Your task to perform on an android device: open device folders in google photos Image 0: 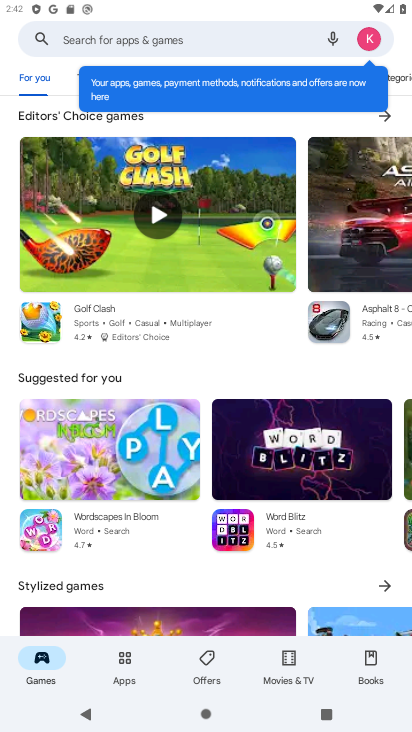
Step 0: press home button
Your task to perform on an android device: open device folders in google photos Image 1: 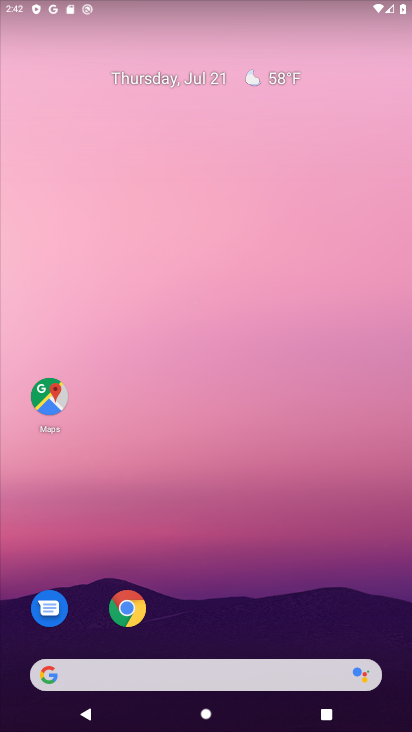
Step 1: drag from (220, 633) to (220, 155)
Your task to perform on an android device: open device folders in google photos Image 2: 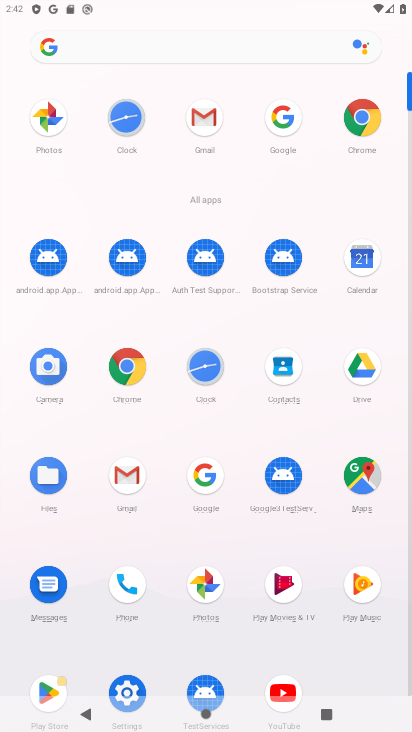
Step 2: click (205, 577)
Your task to perform on an android device: open device folders in google photos Image 3: 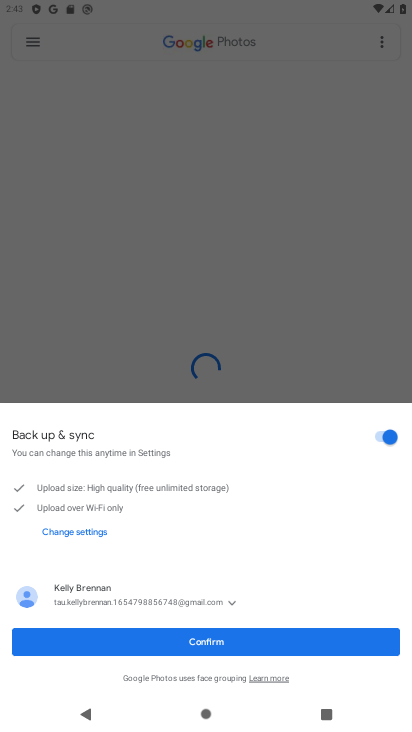
Step 3: click (219, 277)
Your task to perform on an android device: open device folders in google photos Image 4: 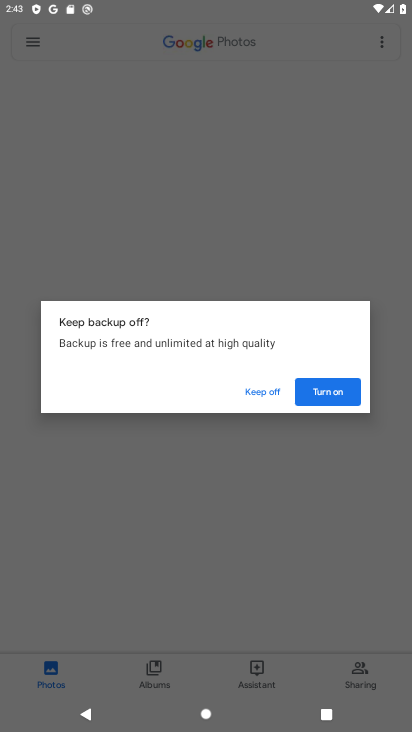
Step 4: click (259, 390)
Your task to perform on an android device: open device folders in google photos Image 5: 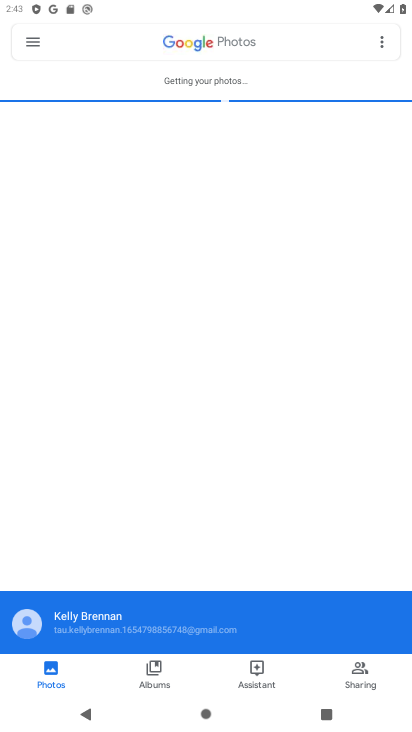
Step 5: click (29, 37)
Your task to perform on an android device: open device folders in google photos Image 6: 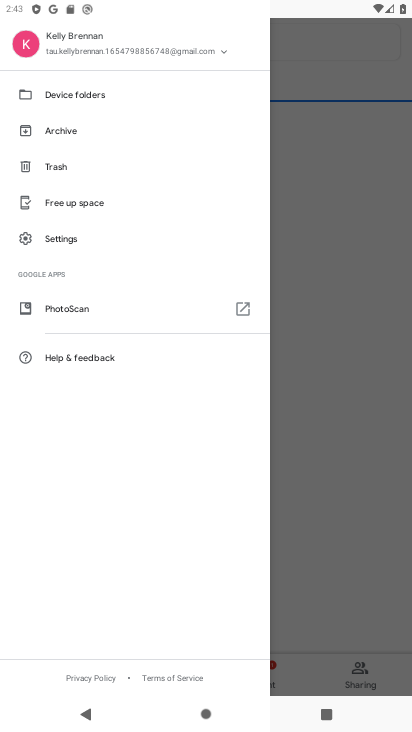
Step 6: click (89, 96)
Your task to perform on an android device: open device folders in google photos Image 7: 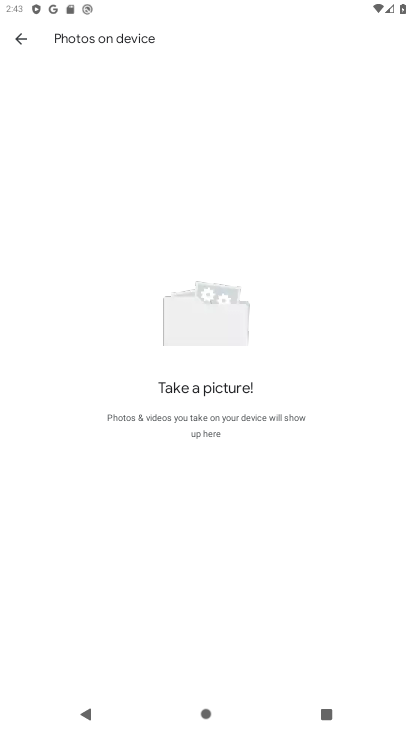
Step 7: task complete